Your task to perform on an android device: add a contact in the contacts app Image 0: 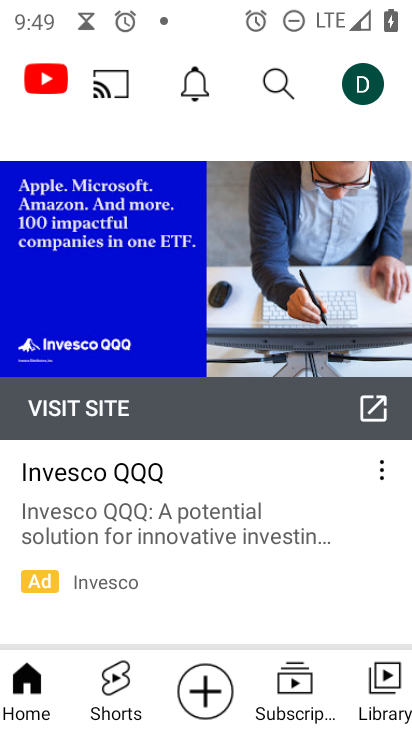
Step 0: press back button
Your task to perform on an android device: add a contact in the contacts app Image 1: 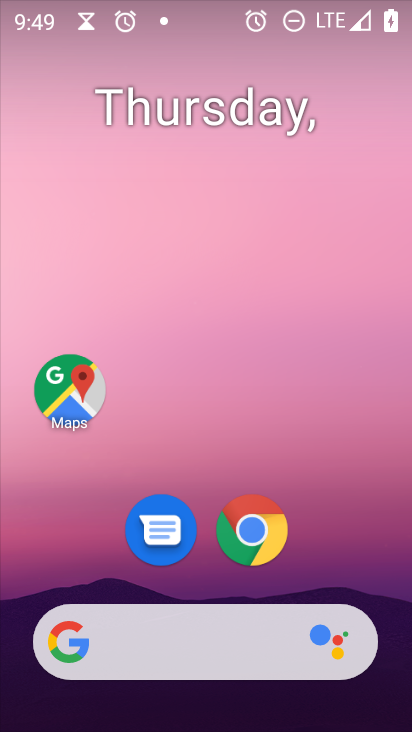
Step 1: drag from (340, 546) to (288, 25)
Your task to perform on an android device: add a contact in the contacts app Image 2: 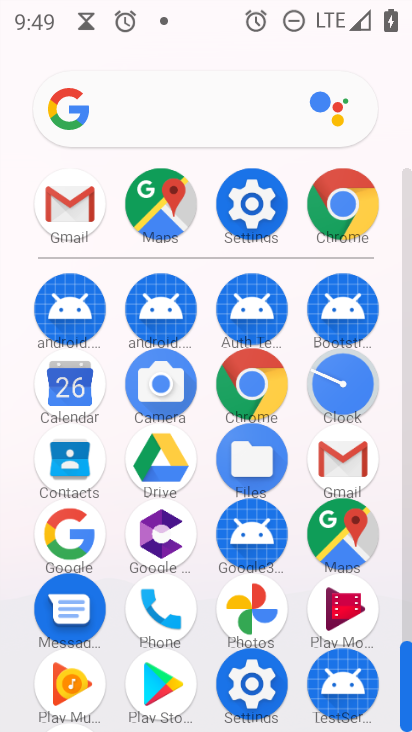
Step 2: click (64, 452)
Your task to perform on an android device: add a contact in the contacts app Image 3: 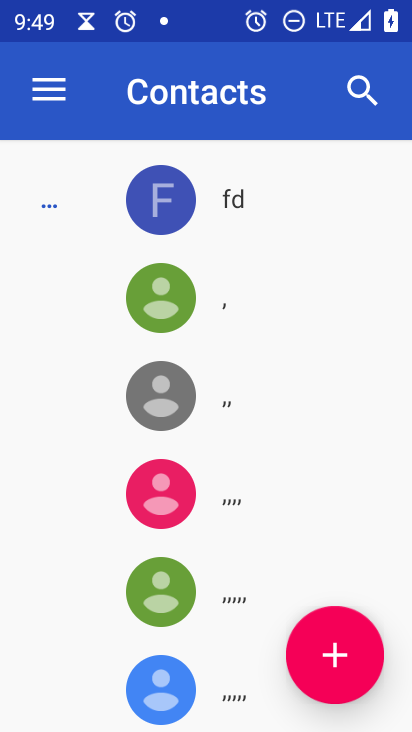
Step 3: click (360, 633)
Your task to perform on an android device: add a contact in the contacts app Image 4: 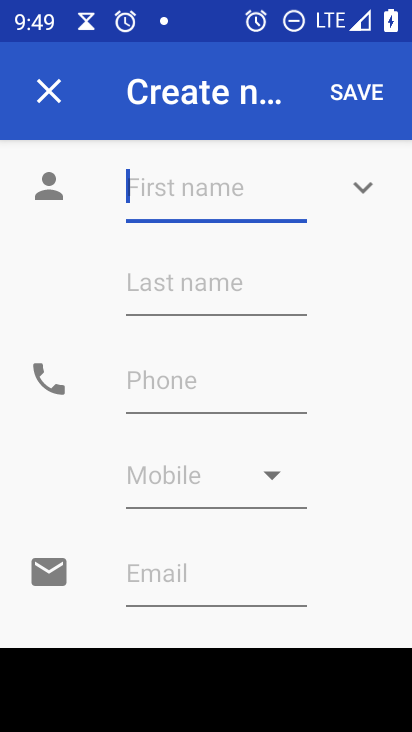
Step 4: type "Sssdfgh"
Your task to perform on an android device: add a contact in the contacts app Image 5: 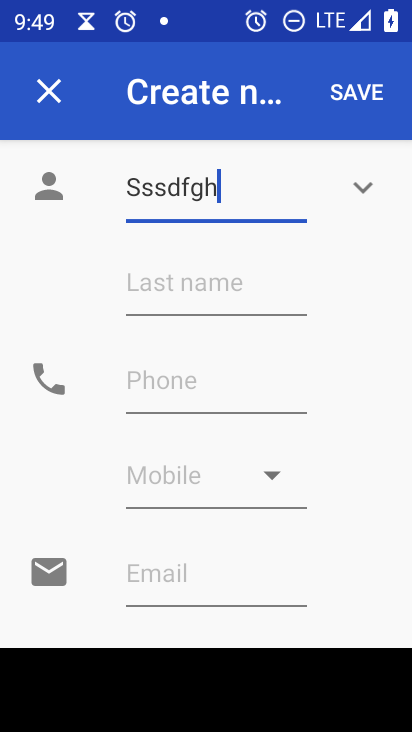
Step 5: type ""
Your task to perform on an android device: add a contact in the contacts app Image 6: 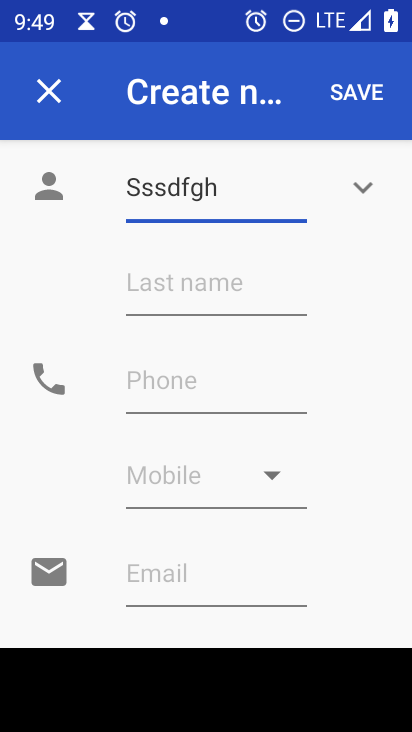
Step 6: click (191, 385)
Your task to perform on an android device: add a contact in the contacts app Image 7: 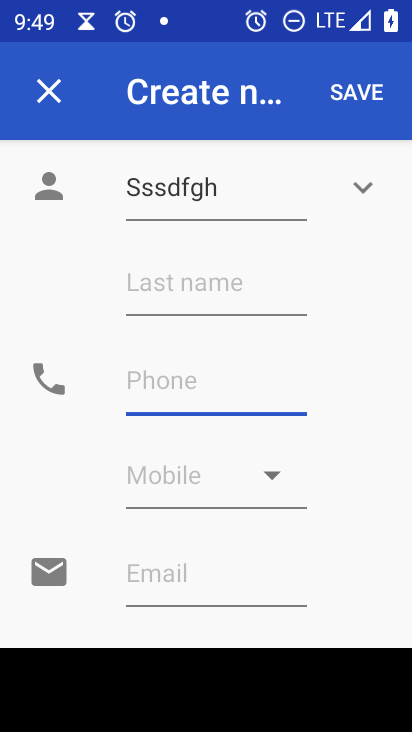
Step 7: type "234567"
Your task to perform on an android device: add a contact in the contacts app Image 8: 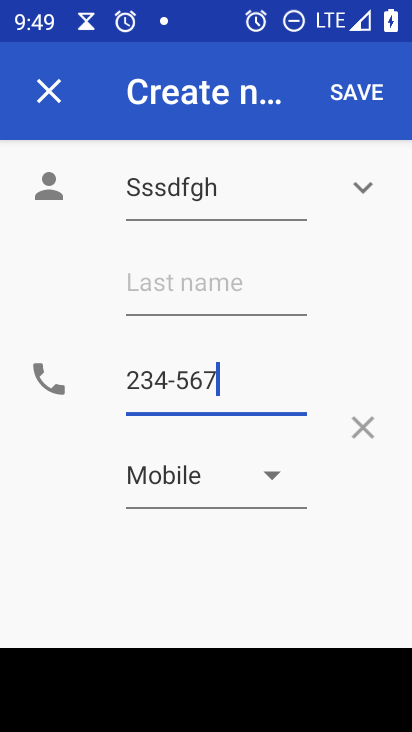
Step 8: type ""
Your task to perform on an android device: add a contact in the contacts app Image 9: 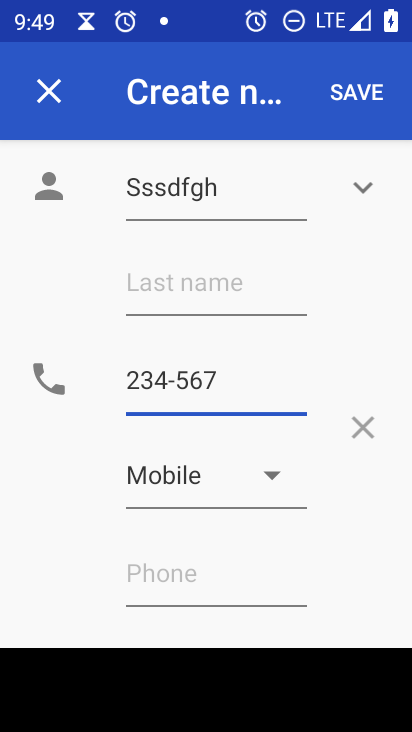
Step 9: click (352, 90)
Your task to perform on an android device: add a contact in the contacts app Image 10: 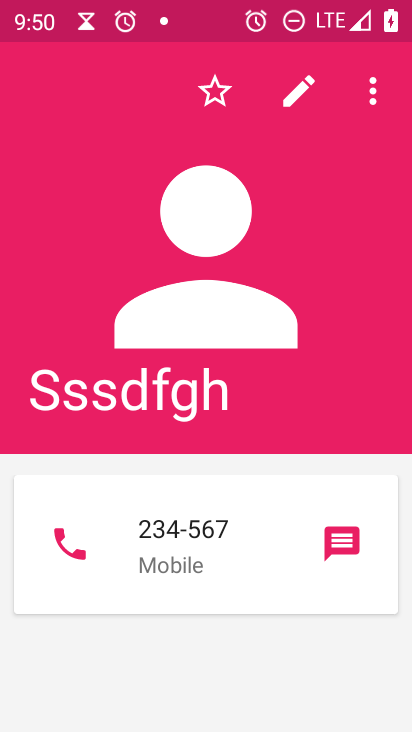
Step 10: task complete